Your task to perform on an android device: Open Reddit.com Image 0: 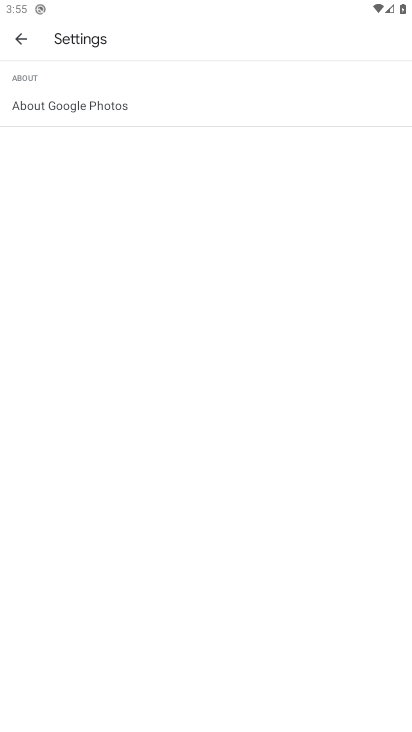
Step 0: press home button
Your task to perform on an android device: Open Reddit.com Image 1: 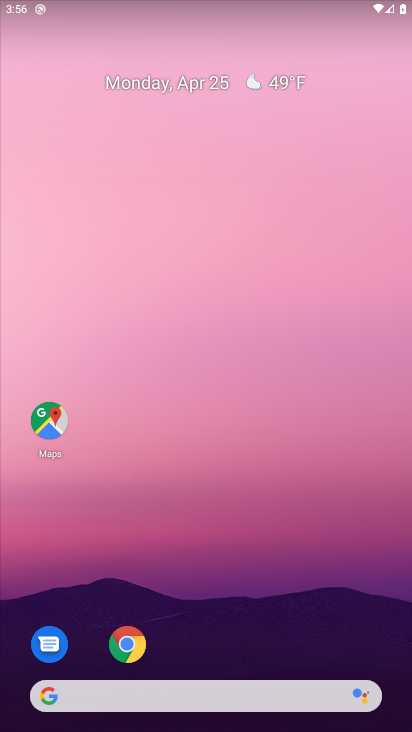
Step 1: click (136, 647)
Your task to perform on an android device: Open Reddit.com Image 2: 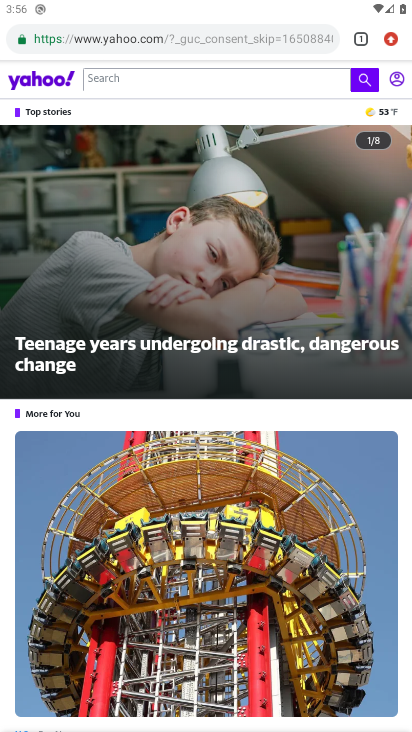
Step 2: click (213, 31)
Your task to perform on an android device: Open Reddit.com Image 3: 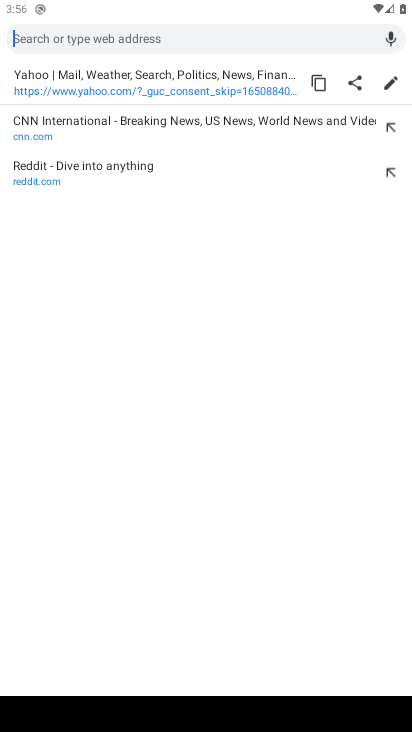
Step 3: type "reddit.com"
Your task to perform on an android device: Open Reddit.com Image 4: 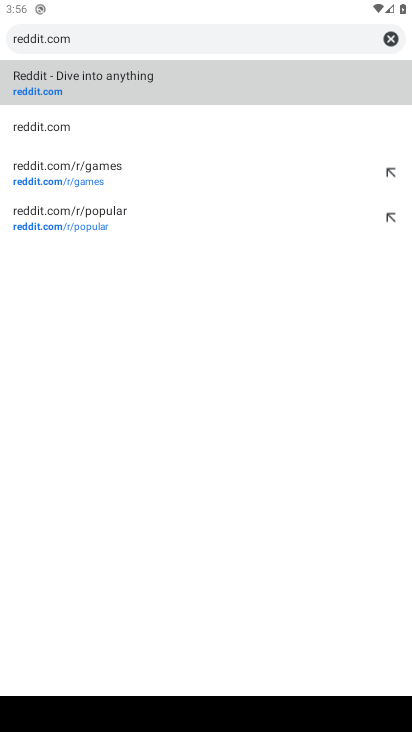
Step 4: click (138, 87)
Your task to perform on an android device: Open Reddit.com Image 5: 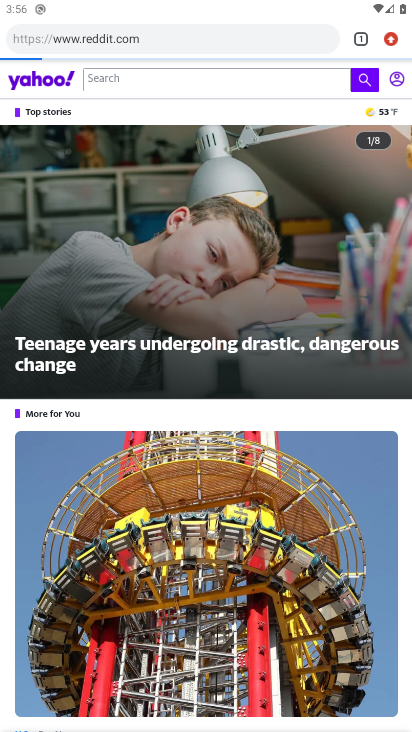
Step 5: task complete